Your task to perform on an android device: Open Google Image 0: 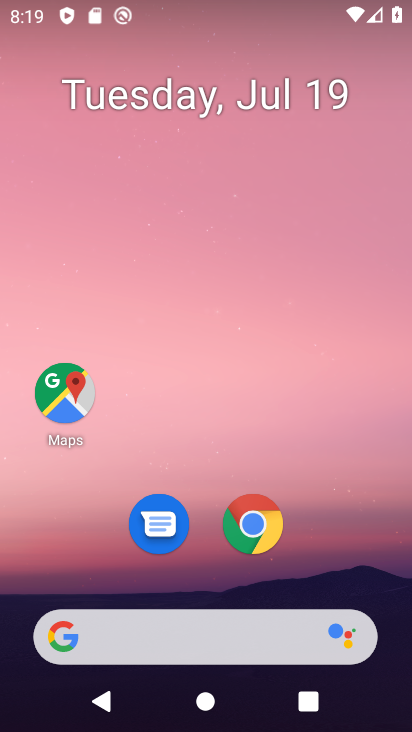
Step 0: drag from (182, 632) to (262, 90)
Your task to perform on an android device: Open Google Image 1: 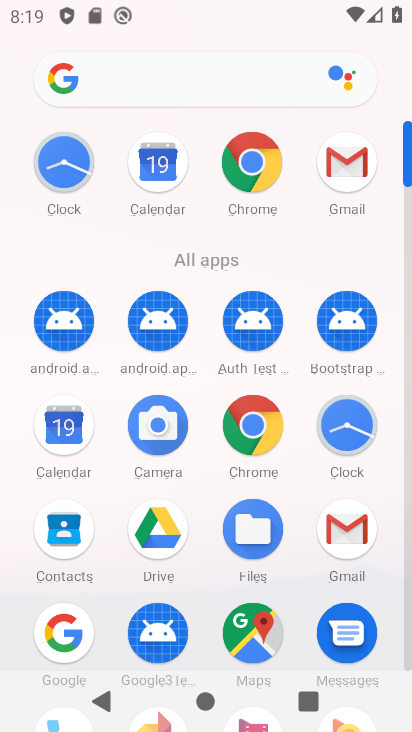
Step 1: click (65, 626)
Your task to perform on an android device: Open Google Image 2: 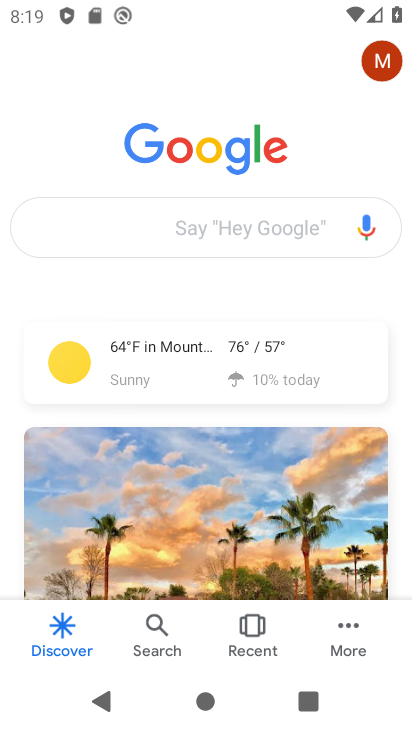
Step 2: task complete